Your task to perform on an android device: Search for seafood restaurants on Google Maps Image 0: 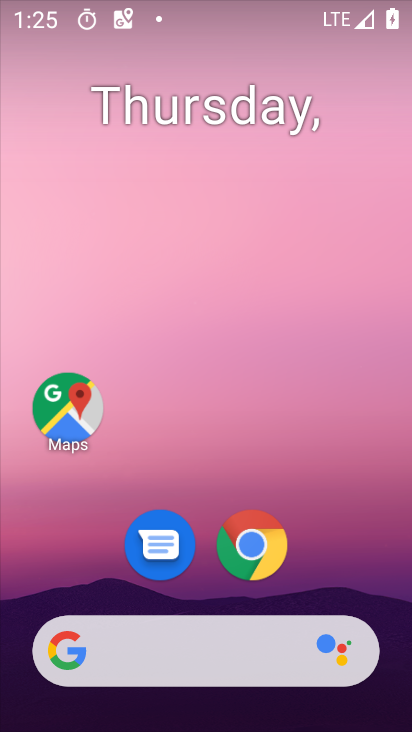
Step 0: drag from (285, 636) to (310, 85)
Your task to perform on an android device: Search for seafood restaurants on Google Maps Image 1: 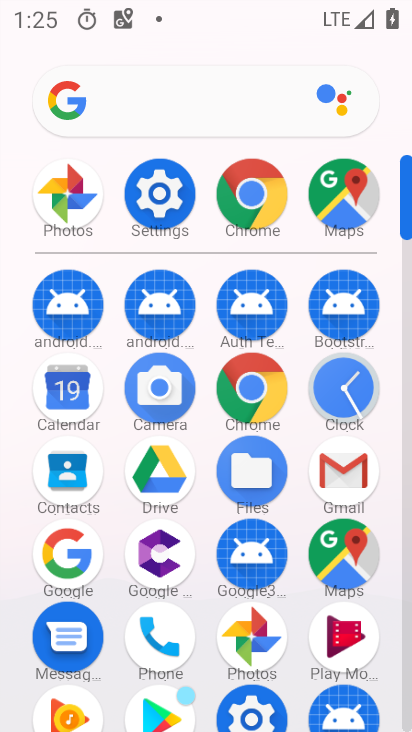
Step 1: click (227, 638)
Your task to perform on an android device: Search for seafood restaurants on Google Maps Image 2: 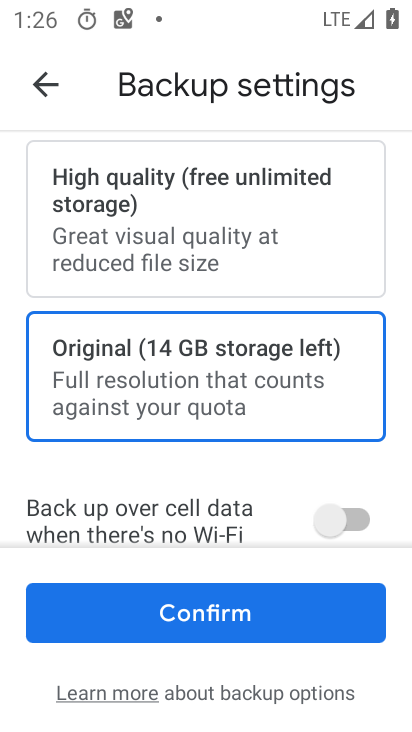
Step 2: press back button
Your task to perform on an android device: Search for seafood restaurants on Google Maps Image 3: 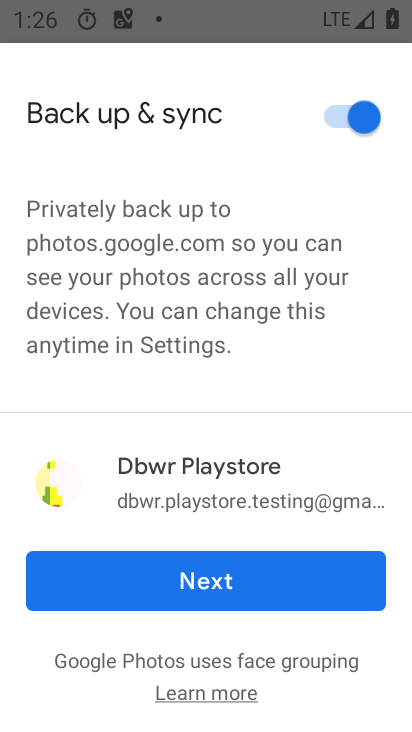
Step 3: press home button
Your task to perform on an android device: Search for seafood restaurants on Google Maps Image 4: 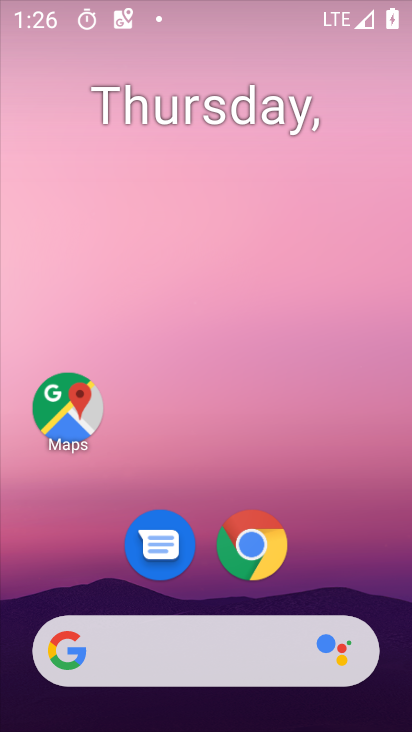
Step 4: drag from (162, 712) to (271, 117)
Your task to perform on an android device: Search for seafood restaurants on Google Maps Image 5: 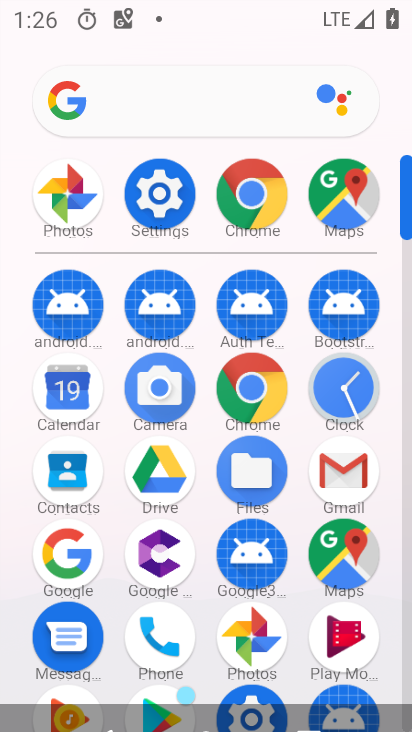
Step 5: click (354, 535)
Your task to perform on an android device: Search for seafood restaurants on Google Maps Image 6: 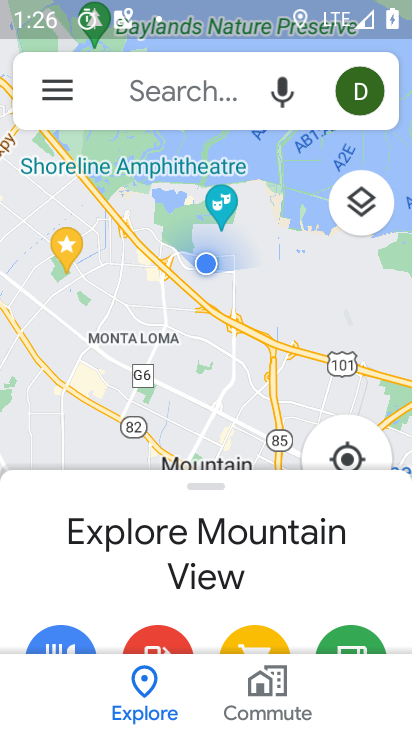
Step 6: click (181, 80)
Your task to perform on an android device: Search for seafood restaurants on Google Maps Image 7: 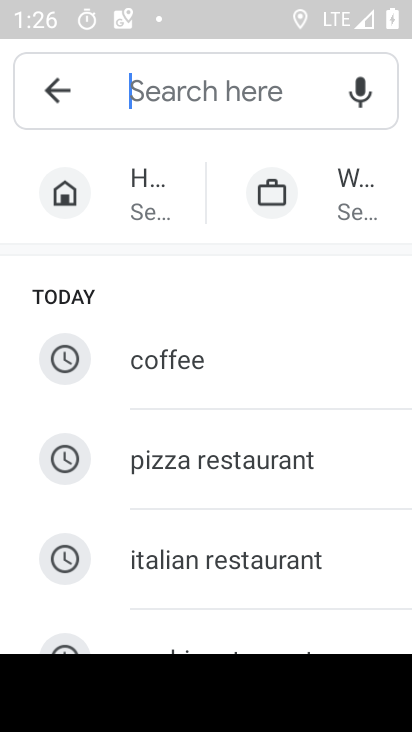
Step 7: drag from (178, 631) to (193, 218)
Your task to perform on an android device: Search for seafood restaurants on Google Maps Image 8: 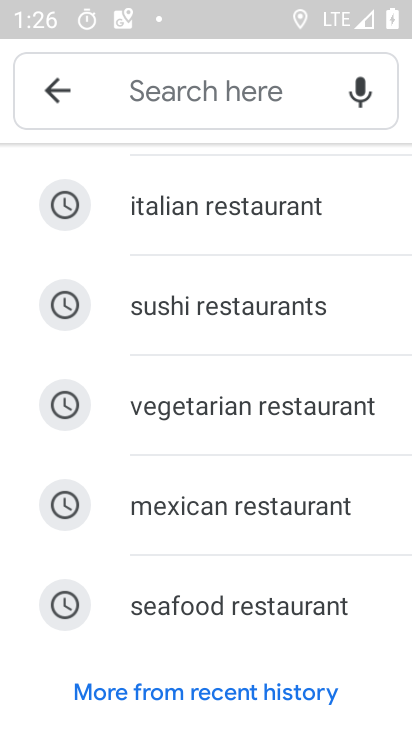
Step 8: click (236, 606)
Your task to perform on an android device: Search for seafood restaurants on Google Maps Image 9: 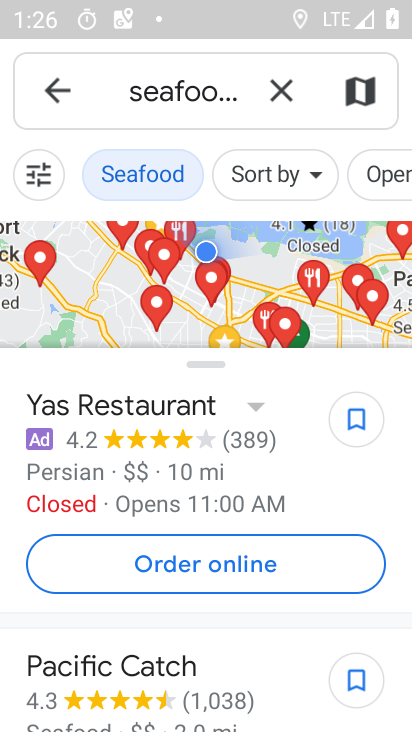
Step 9: task complete